Your task to perform on an android device: What's on my calendar tomorrow? Image 0: 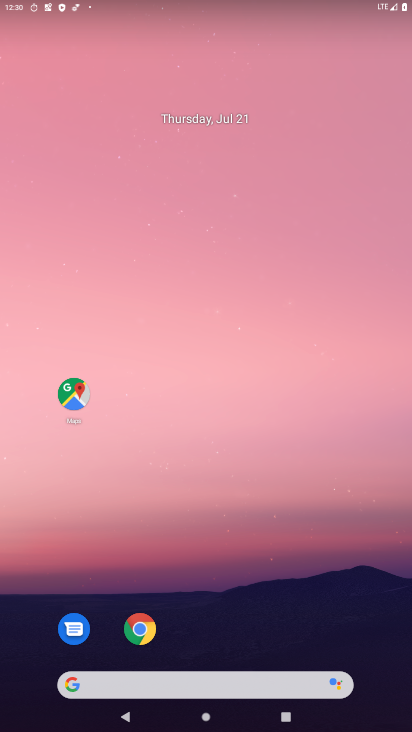
Step 0: drag from (276, 676) to (199, 10)
Your task to perform on an android device: What's on my calendar tomorrow? Image 1: 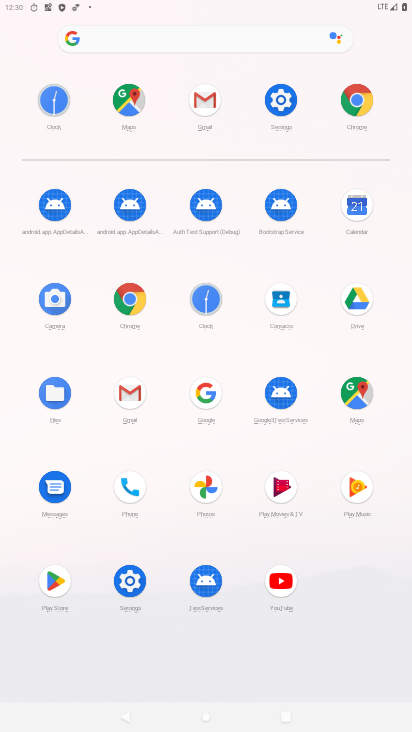
Step 1: click (356, 212)
Your task to perform on an android device: What's on my calendar tomorrow? Image 2: 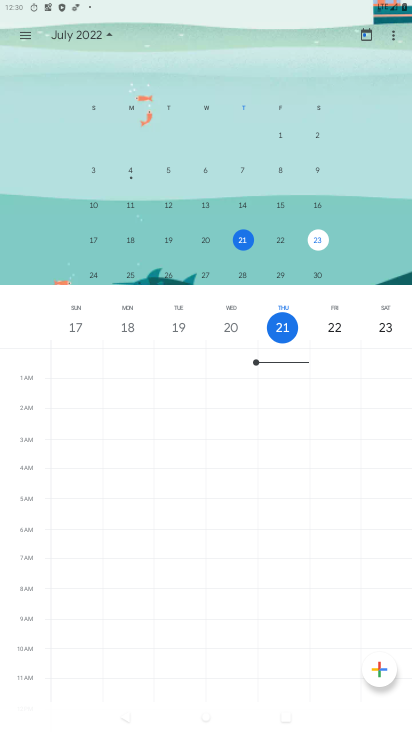
Step 2: click (271, 236)
Your task to perform on an android device: What's on my calendar tomorrow? Image 3: 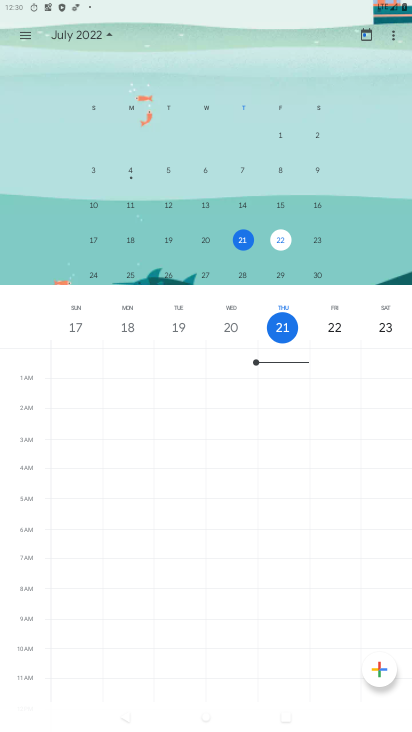
Step 3: task complete